Your task to perform on an android device: Add beats solo 3 to the cart on newegg.com Image 0: 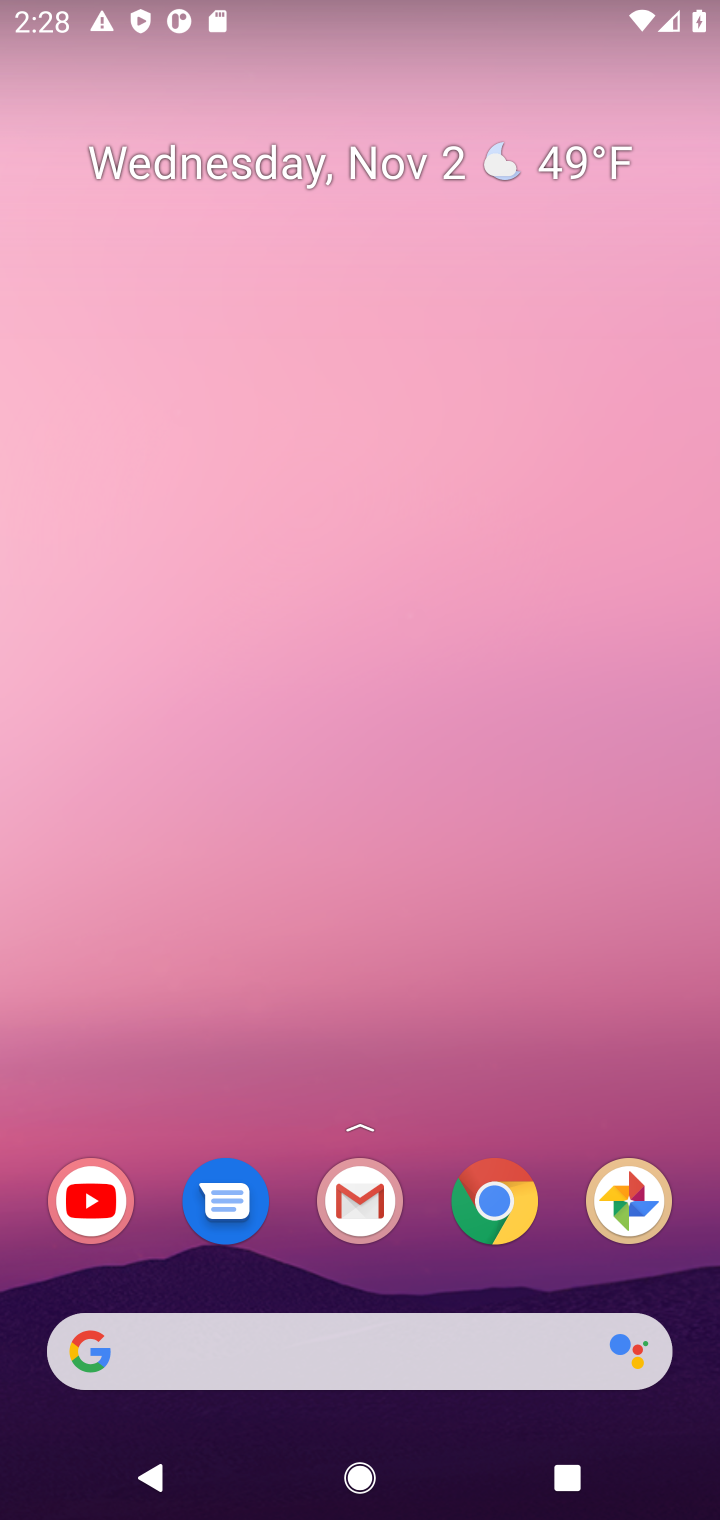
Step 0: click (492, 1208)
Your task to perform on an android device: Add beats solo 3 to the cart on newegg.com Image 1: 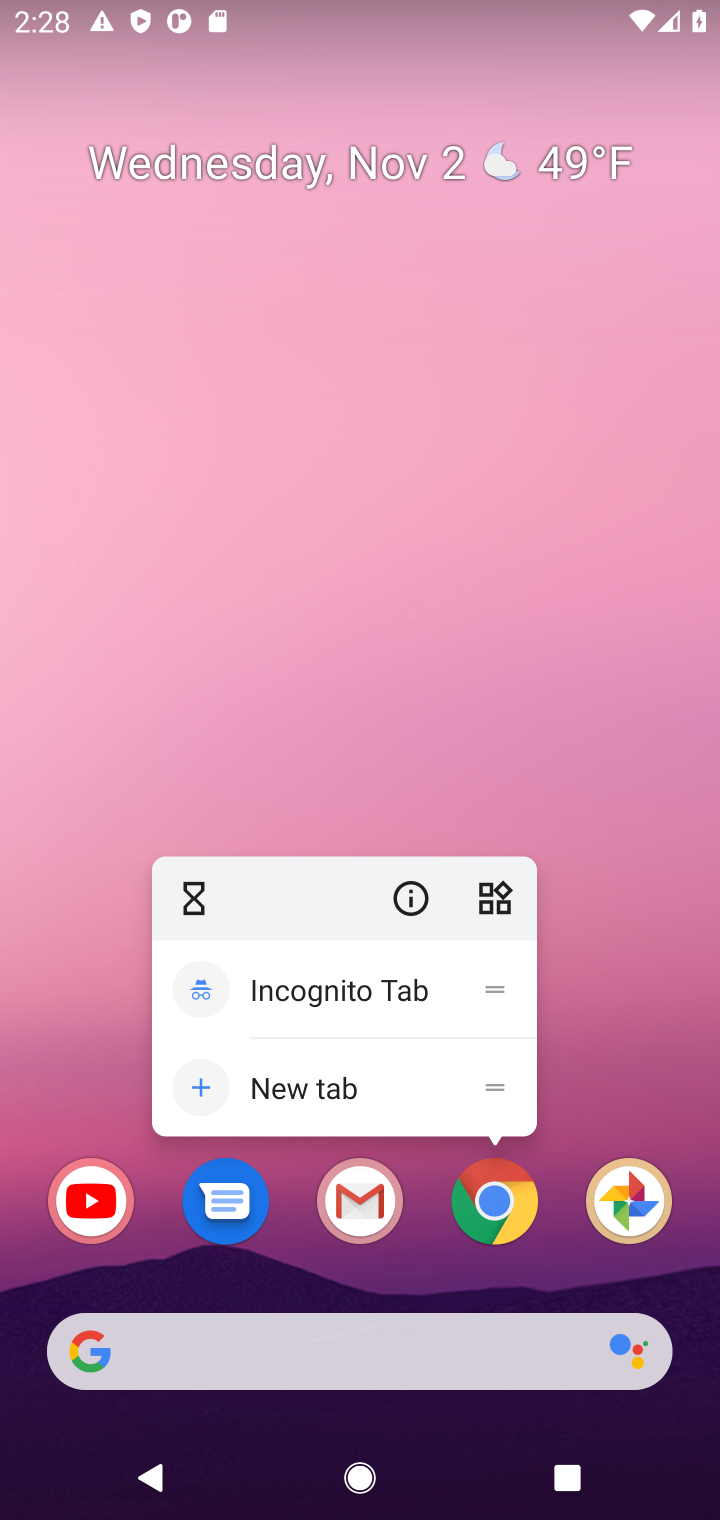
Step 1: click (513, 1209)
Your task to perform on an android device: Add beats solo 3 to the cart on newegg.com Image 2: 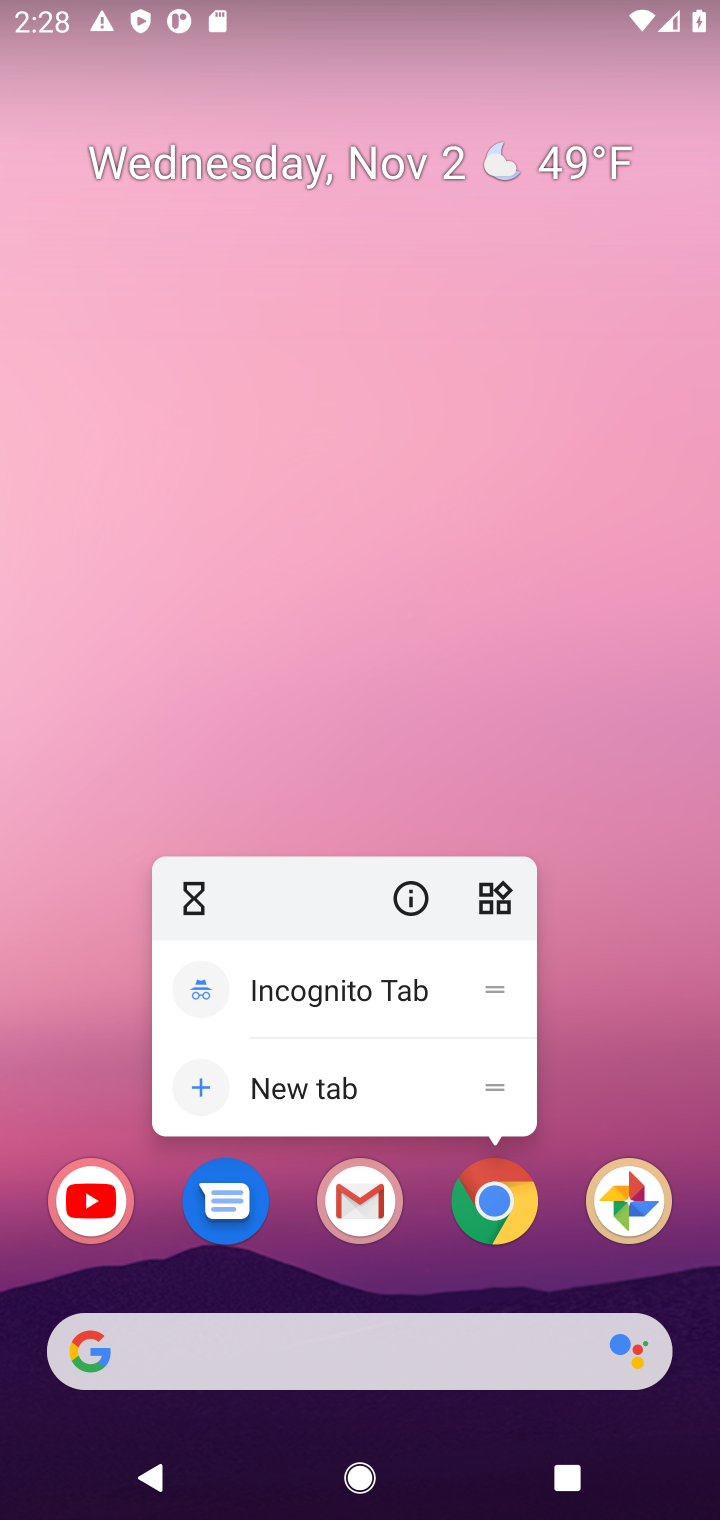
Step 2: click (492, 1207)
Your task to perform on an android device: Add beats solo 3 to the cart on newegg.com Image 3: 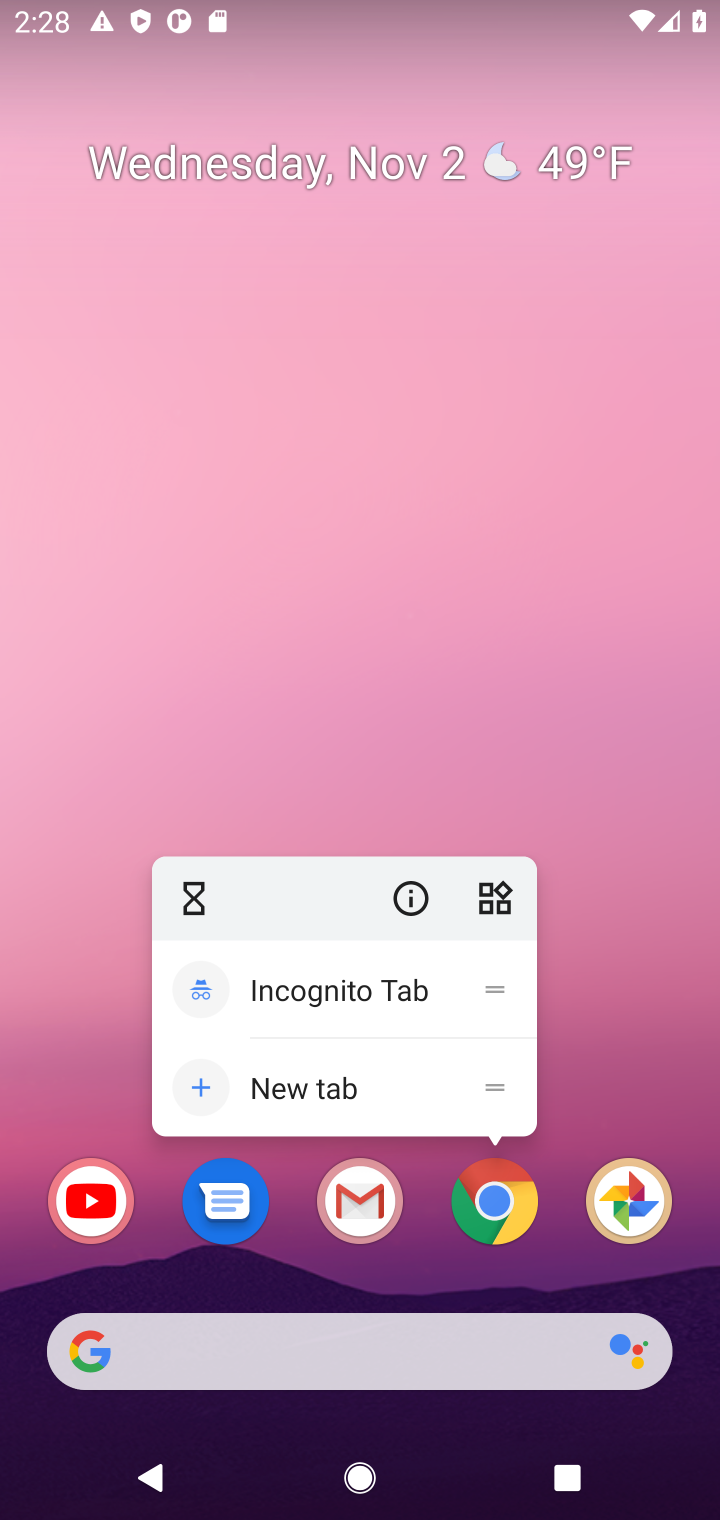
Step 3: click (501, 1203)
Your task to perform on an android device: Add beats solo 3 to the cart on newegg.com Image 4: 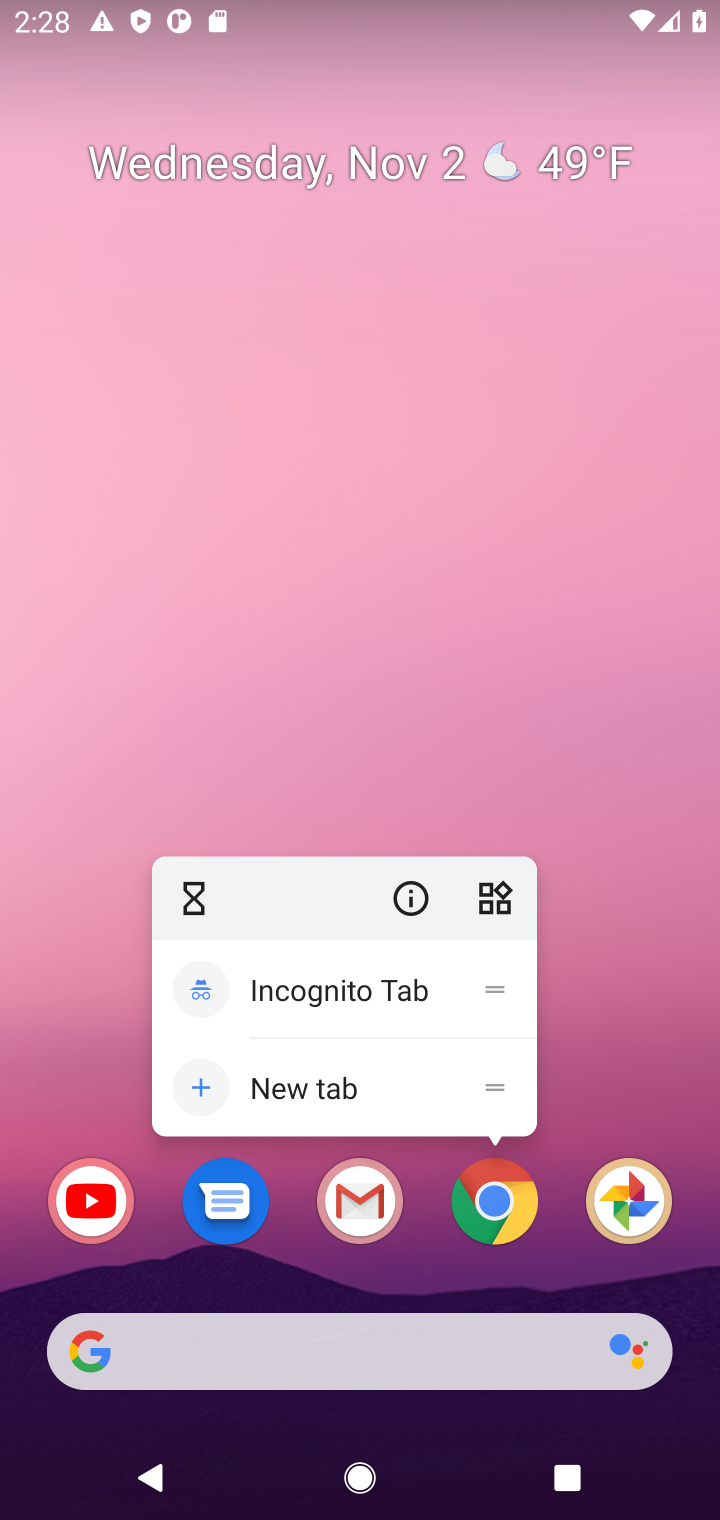
Step 4: click (501, 1201)
Your task to perform on an android device: Add beats solo 3 to the cart on newegg.com Image 5: 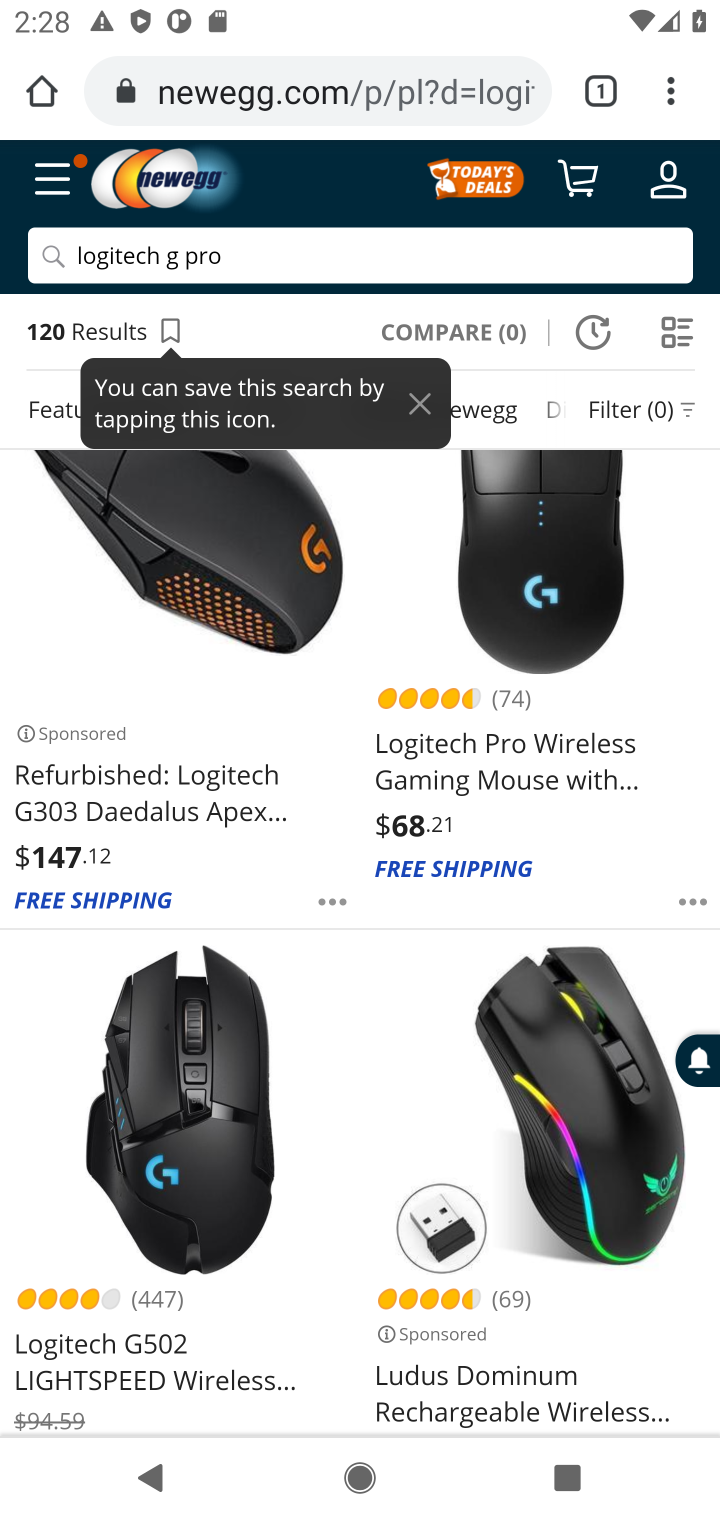
Step 5: click (249, 236)
Your task to perform on an android device: Add beats solo 3 to the cart on newegg.com Image 6: 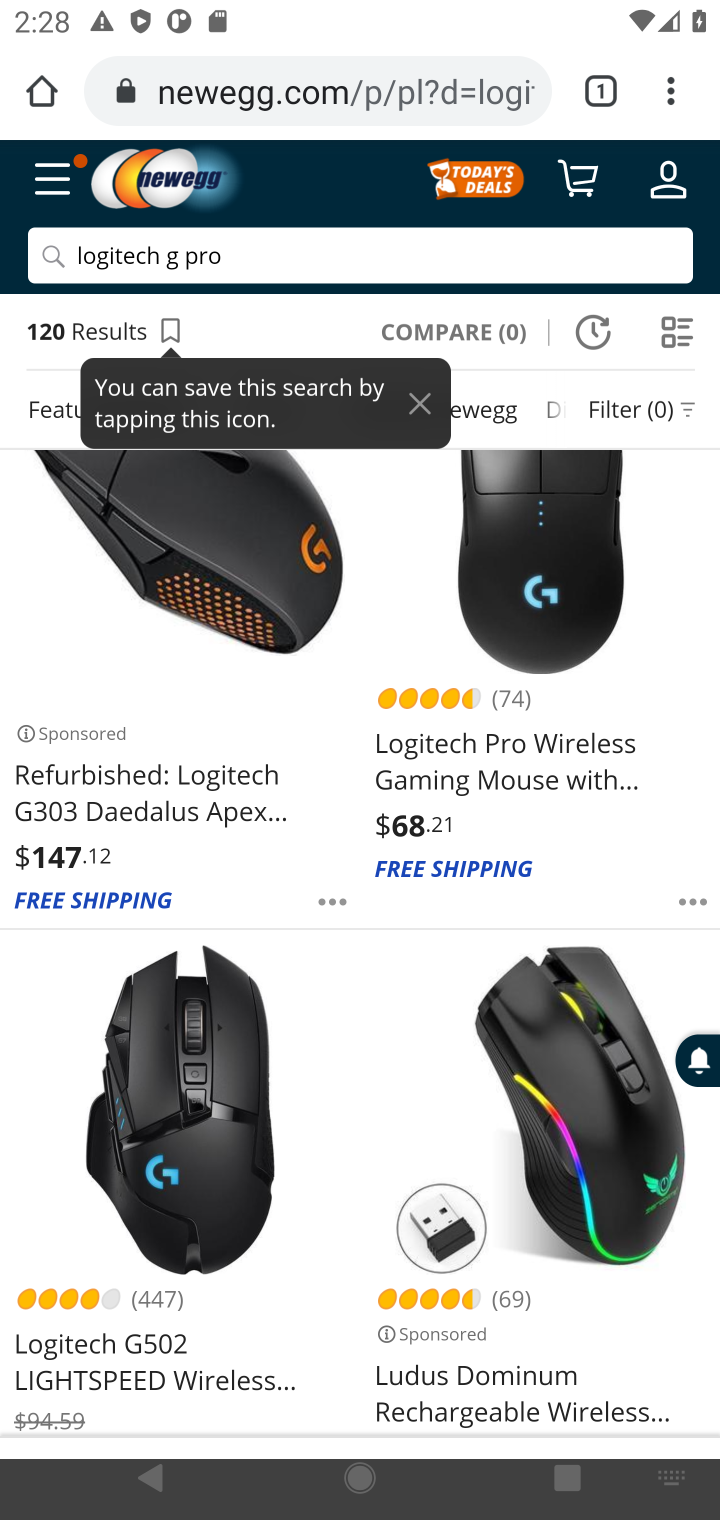
Step 6: click (232, 253)
Your task to perform on an android device: Add beats solo 3 to the cart on newegg.com Image 7: 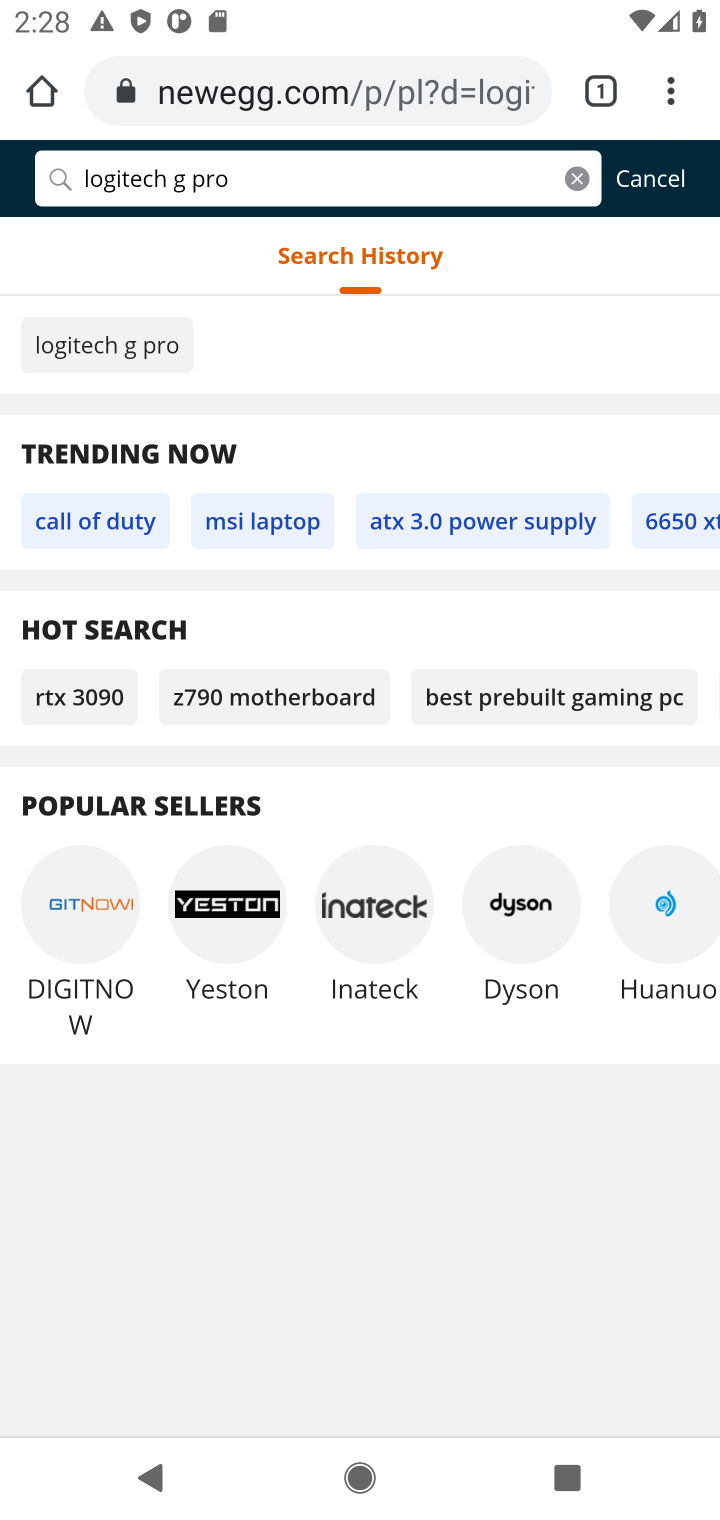
Step 7: click (576, 181)
Your task to perform on an android device: Add beats solo 3 to the cart on newegg.com Image 8: 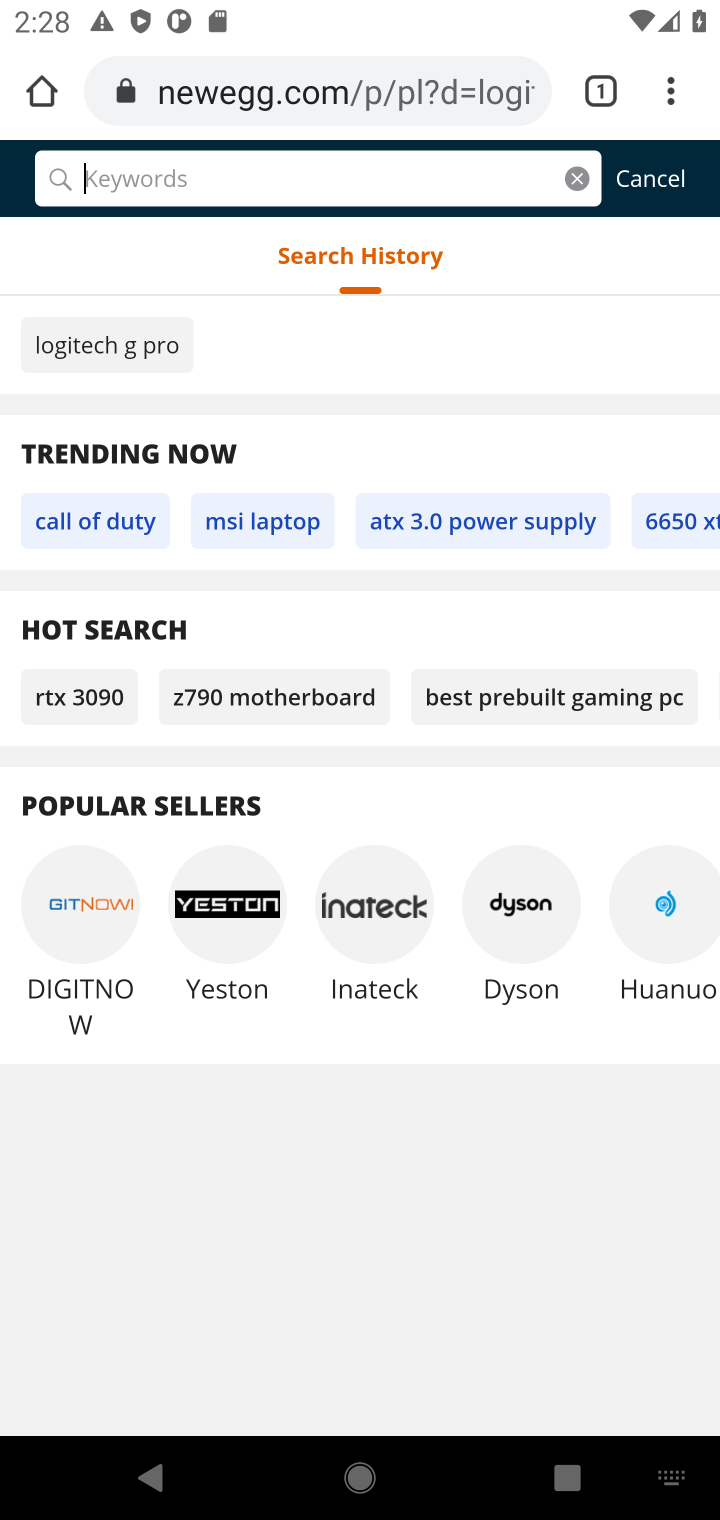
Step 8: click (189, 180)
Your task to perform on an android device: Add beats solo 3 to the cart on newegg.com Image 9: 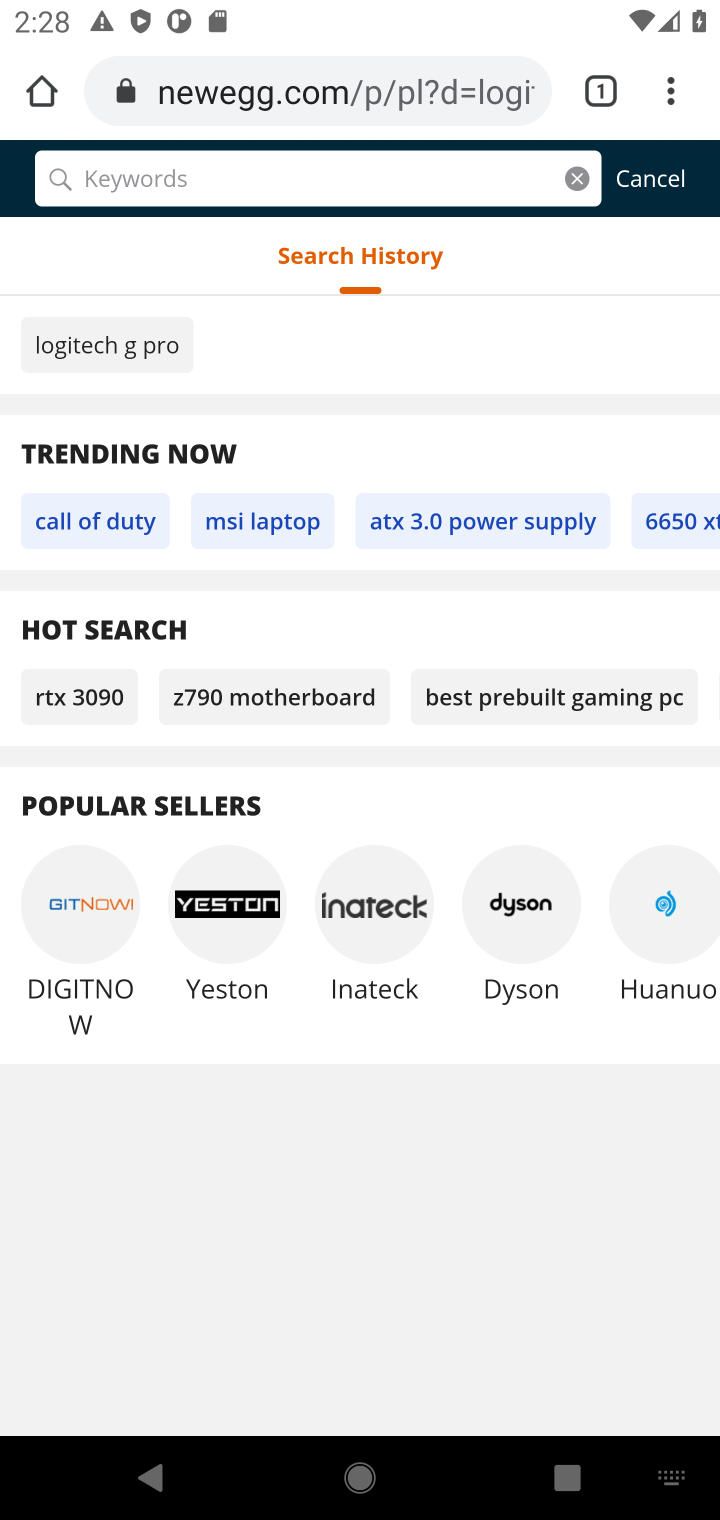
Step 9: type "beats solo 3"
Your task to perform on an android device: Add beats solo 3 to the cart on newegg.com Image 10: 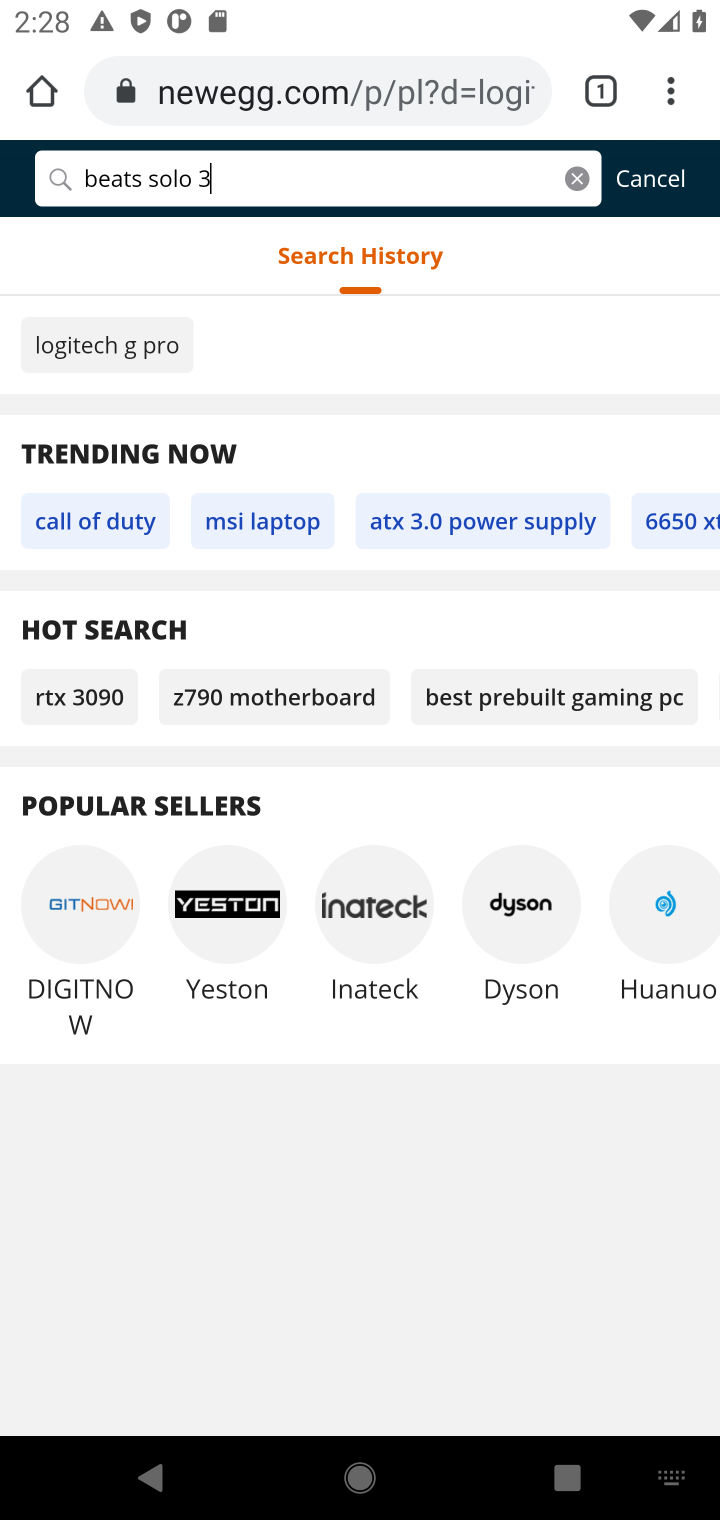
Step 10: press enter
Your task to perform on an android device: Add beats solo 3 to the cart on newegg.com Image 11: 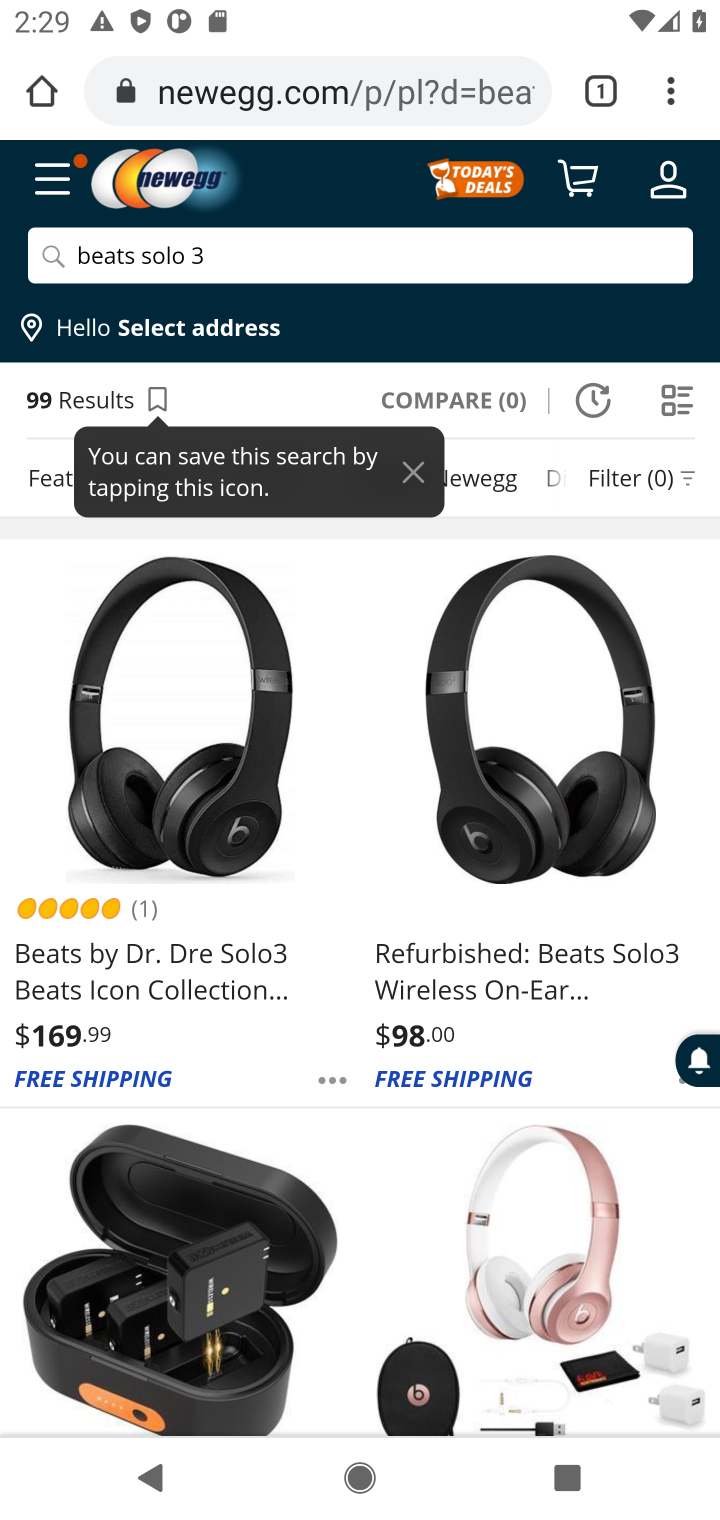
Step 11: click (197, 740)
Your task to perform on an android device: Add beats solo 3 to the cart on newegg.com Image 12: 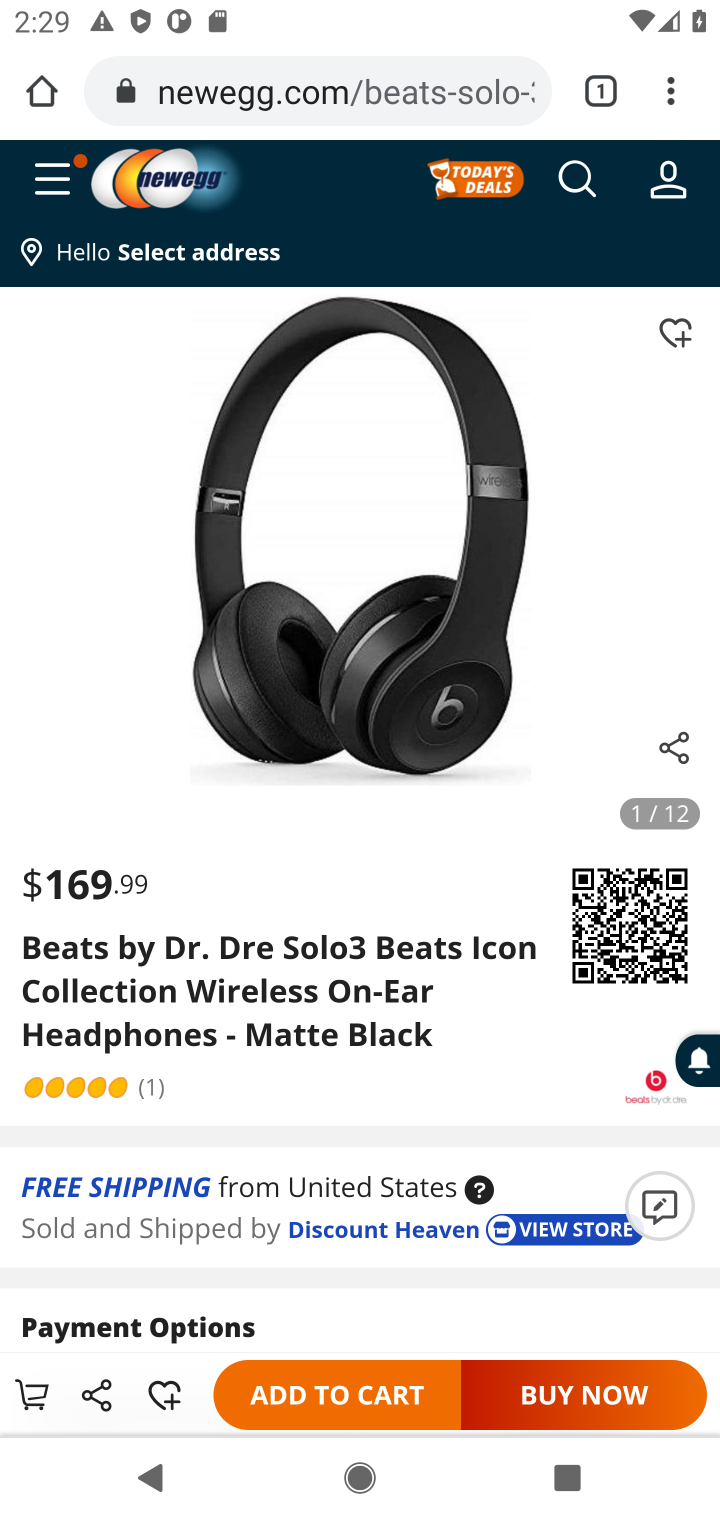
Step 12: click (328, 1397)
Your task to perform on an android device: Add beats solo 3 to the cart on newegg.com Image 13: 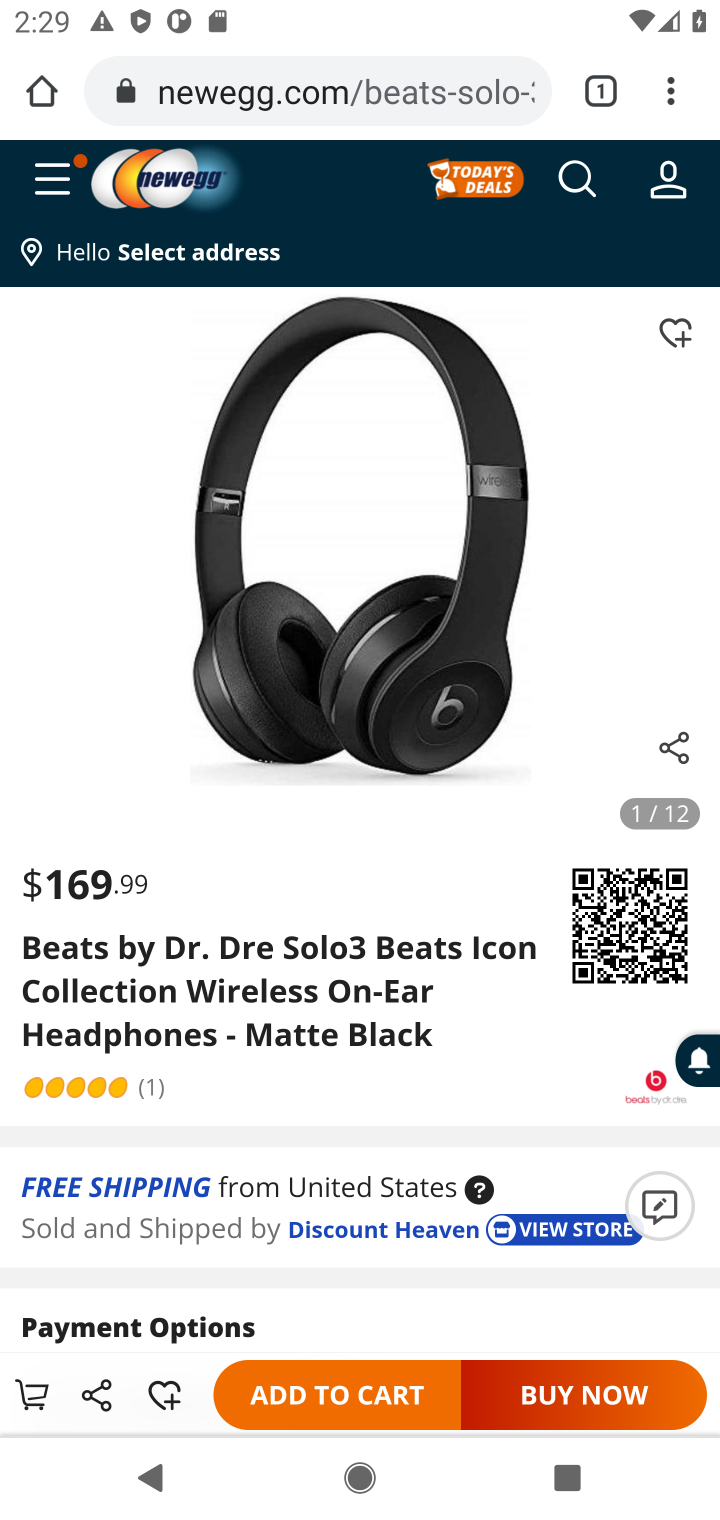
Step 13: click (363, 1393)
Your task to perform on an android device: Add beats solo 3 to the cart on newegg.com Image 14: 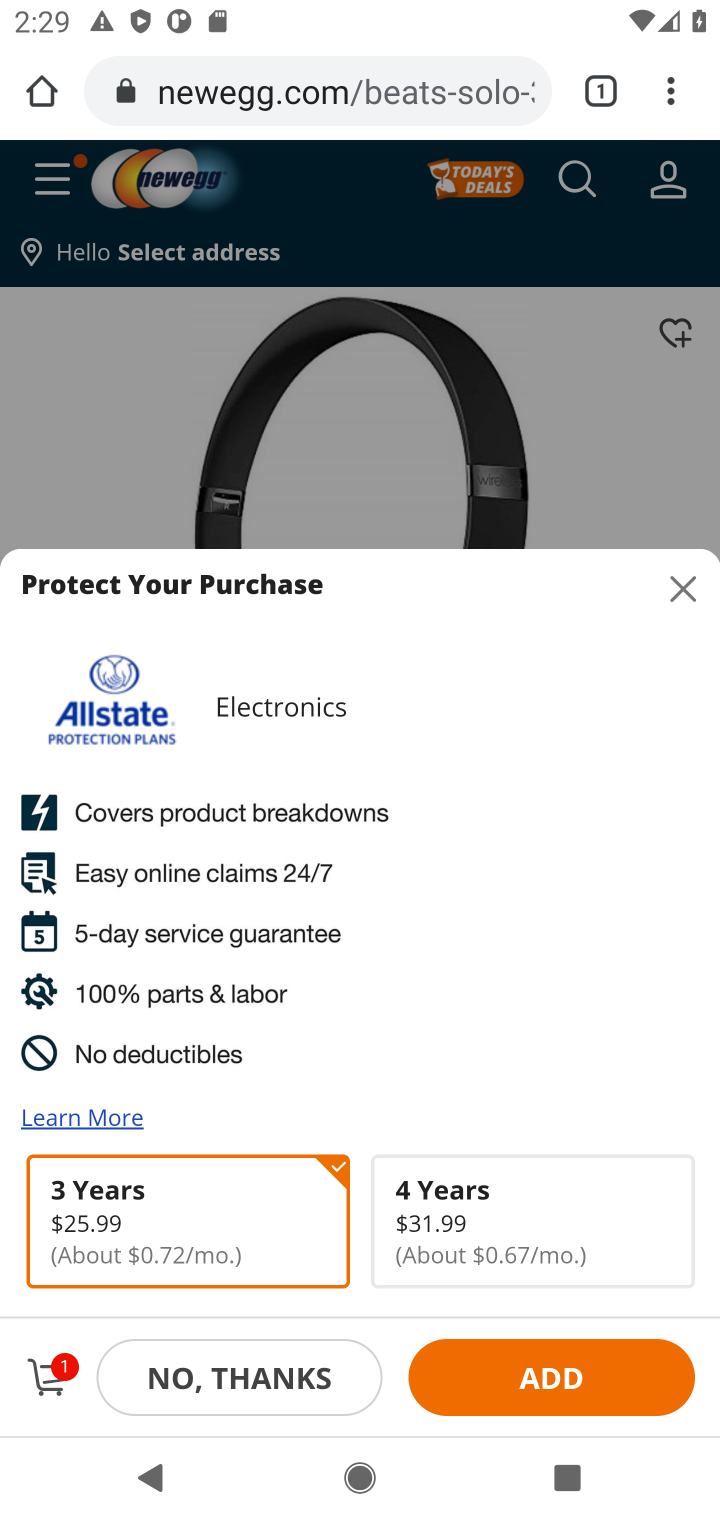
Step 14: click (310, 1372)
Your task to perform on an android device: Add beats solo 3 to the cart on newegg.com Image 15: 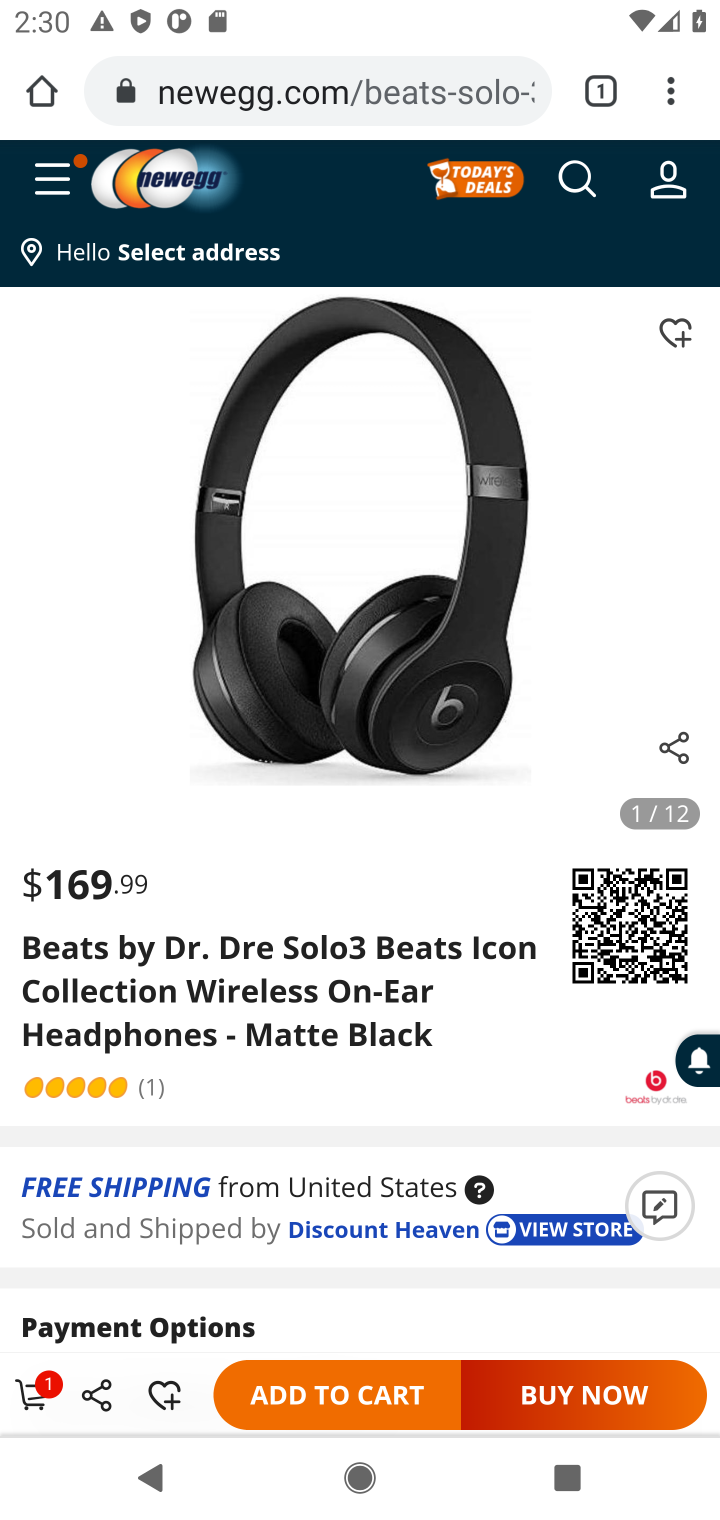
Step 15: task complete